Your task to perform on an android device: Open Google Chrome Image 0: 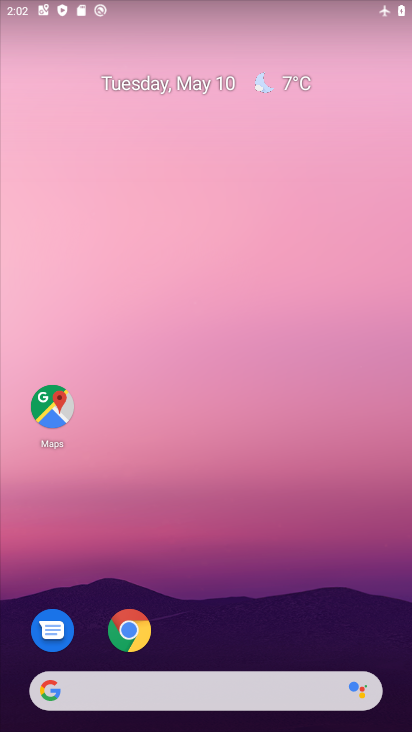
Step 0: drag from (242, 581) to (254, 17)
Your task to perform on an android device: Open Google Chrome Image 1: 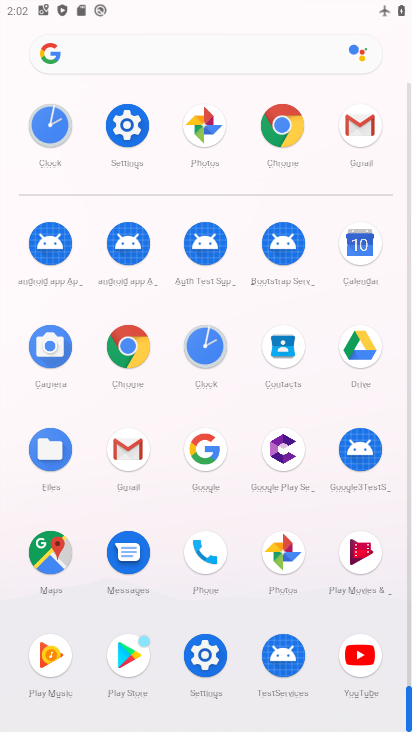
Step 1: click (124, 342)
Your task to perform on an android device: Open Google Chrome Image 2: 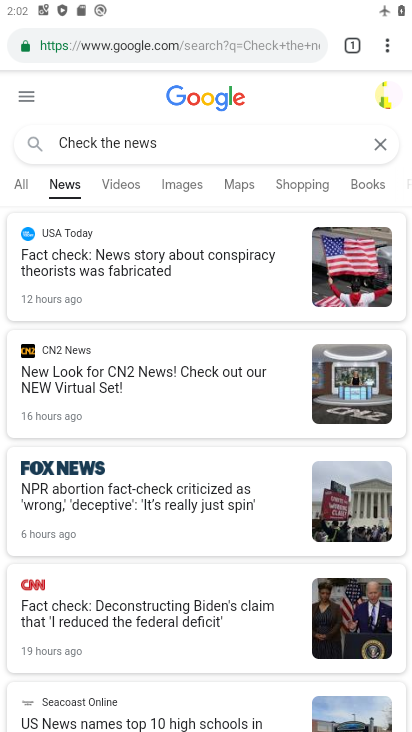
Step 2: task complete